Your task to perform on an android device: View the shopping cart on walmart.com. Search for "bose soundlink" on walmart.com, select the first entry, and add it to the cart. Image 0: 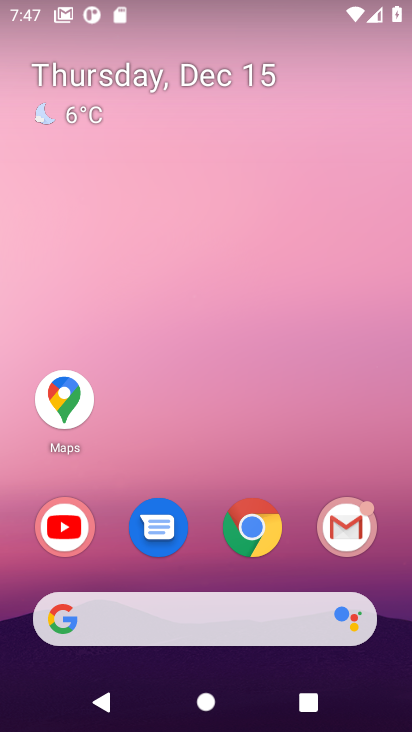
Step 0: click (164, 629)
Your task to perform on an android device: View the shopping cart on walmart.com. Search for "bose soundlink" on walmart.com, select the first entry, and add it to the cart. Image 1: 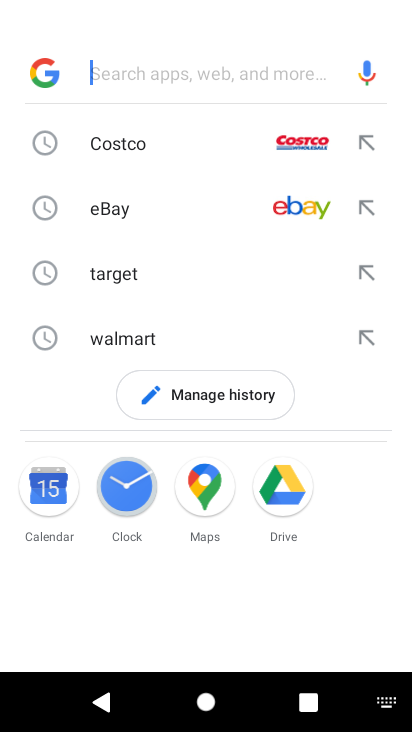
Step 1: click (161, 331)
Your task to perform on an android device: View the shopping cart on walmart.com. Search for "bose soundlink" on walmart.com, select the first entry, and add it to the cart. Image 2: 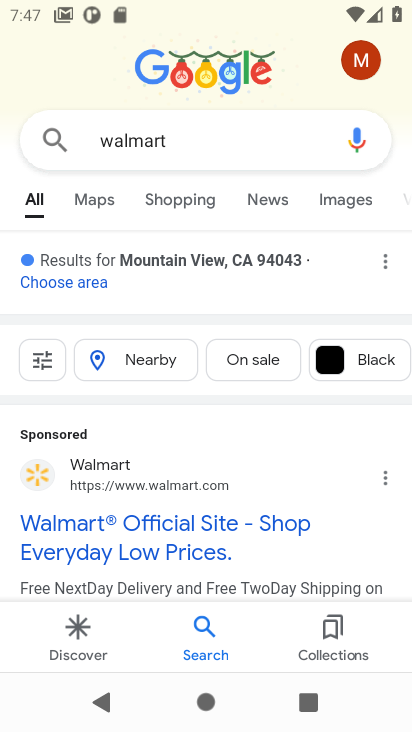
Step 2: click (89, 544)
Your task to perform on an android device: View the shopping cart on walmart.com. Search for "bose soundlink" on walmart.com, select the first entry, and add it to the cart. Image 3: 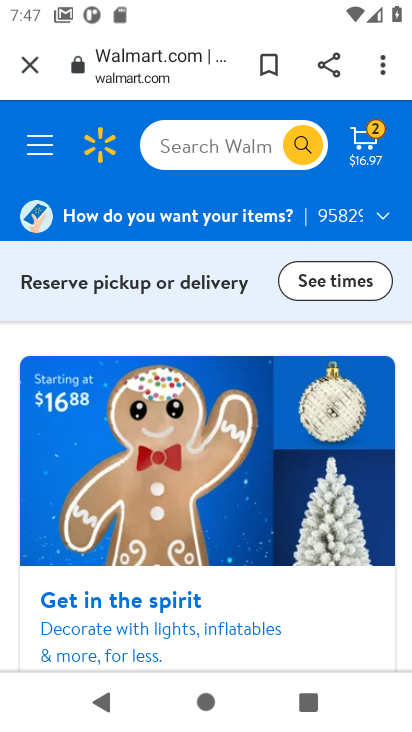
Step 3: click (210, 152)
Your task to perform on an android device: View the shopping cart on walmart.com. Search for "bose soundlink" on walmart.com, select the first entry, and add it to the cart. Image 4: 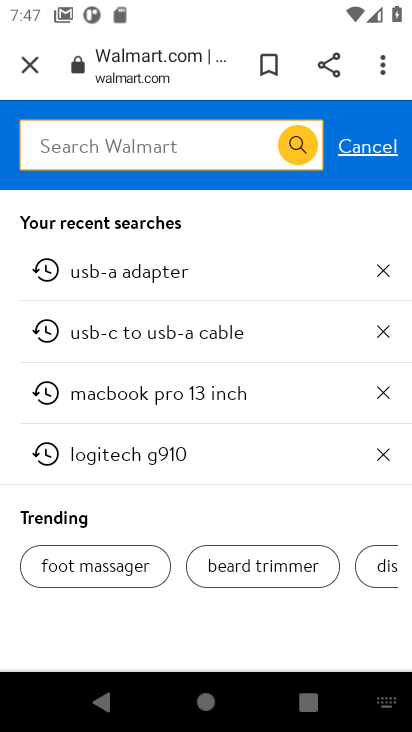
Step 4: type "bose soundlink"
Your task to perform on an android device: View the shopping cart on walmart.com. Search for "bose soundlink" on walmart.com, select the first entry, and add it to the cart. Image 5: 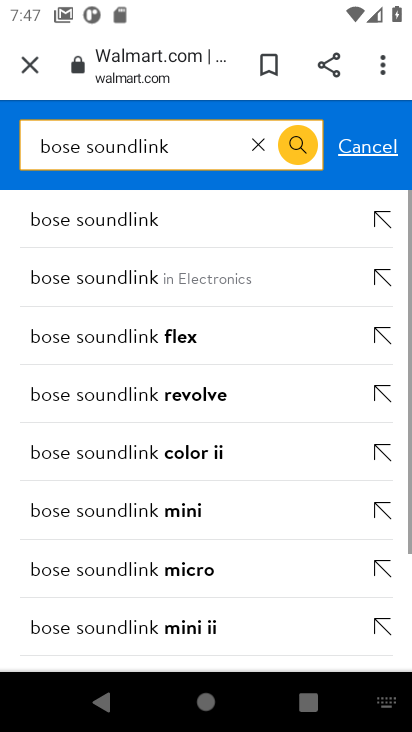
Step 5: click (132, 209)
Your task to perform on an android device: View the shopping cart on walmart.com. Search for "bose soundlink" on walmart.com, select the first entry, and add it to the cart. Image 6: 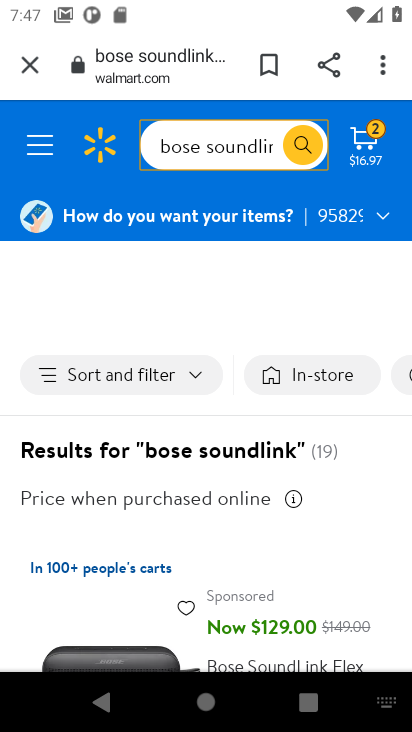
Step 6: drag from (264, 574) to (271, 246)
Your task to perform on an android device: View the shopping cart on walmart.com. Search for "bose soundlink" on walmart.com, select the first entry, and add it to the cart. Image 7: 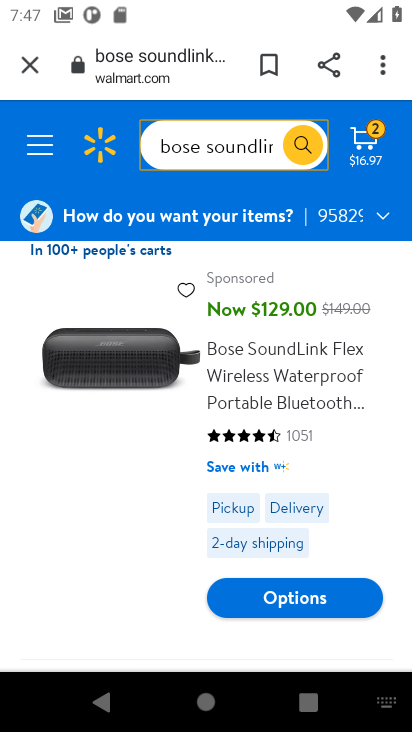
Step 7: click (278, 606)
Your task to perform on an android device: View the shopping cart on walmart.com. Search for "bose soundlink" on walmart.com, select the first entry, and add it to the cart. Image 8: 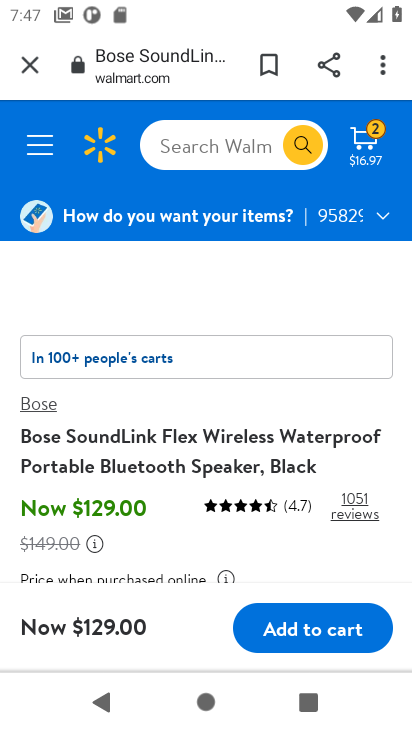
Step 8: click (323, 625)
Your task to perform on an android device: View the shopping cart on walmart.com. Search for "bose soundlink" on walmart.com, select the first entry, and add it to the cart. Image 9: 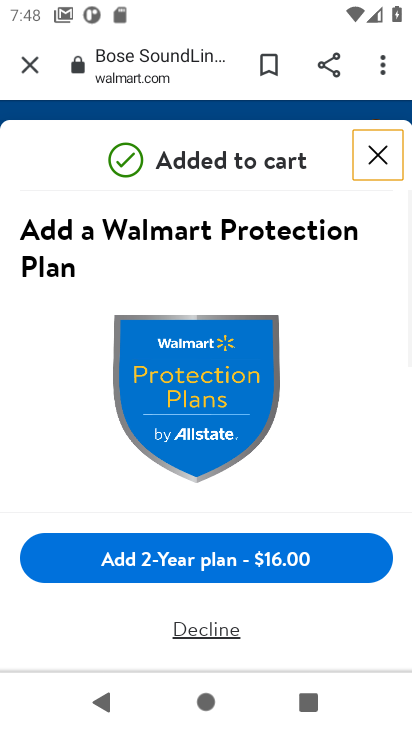
Step 9: task complete